Your task to perform on an android device: toggle sleep mode Image 0: 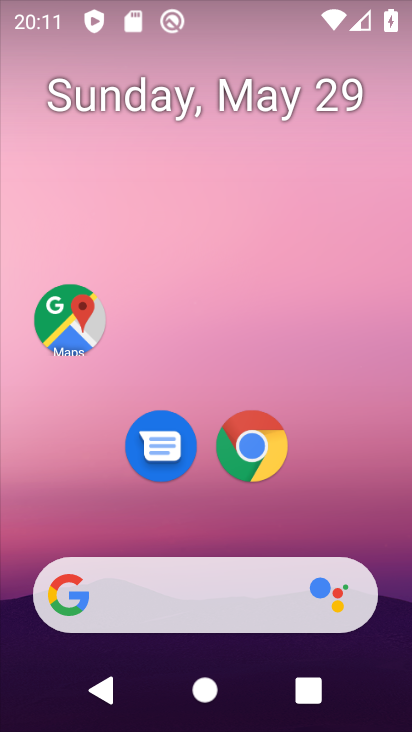
Step 0: drag from (213, 616) to (111, 1)
Your task to perform on an android device: toggle sleep mode Image 1: 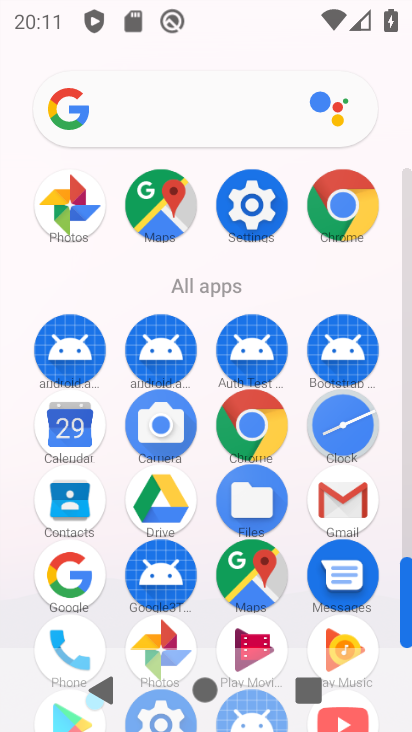
Step 1: click (245, 188)
Your task to perform on an android device: toggle sleep mode Image 2: 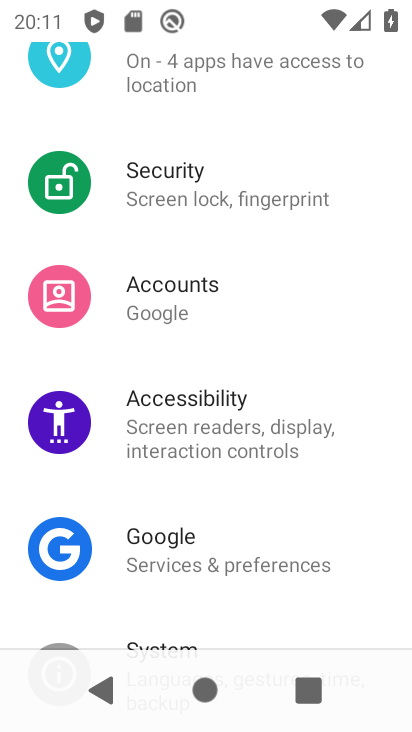
Step 2: drag from (189, 213) to (56, 714)
Your task to perform on an android device: toggle sleep mode Image 3: 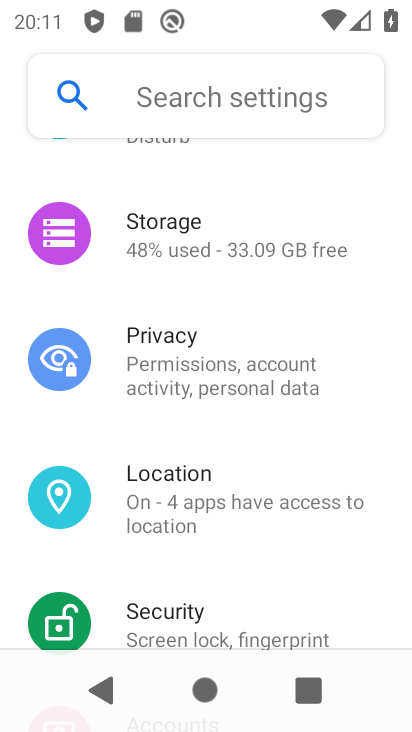
Step 3: drag from (144, 303) to (212, 543)
Your task to perform on an android device: toggle sleep mode Image 4: 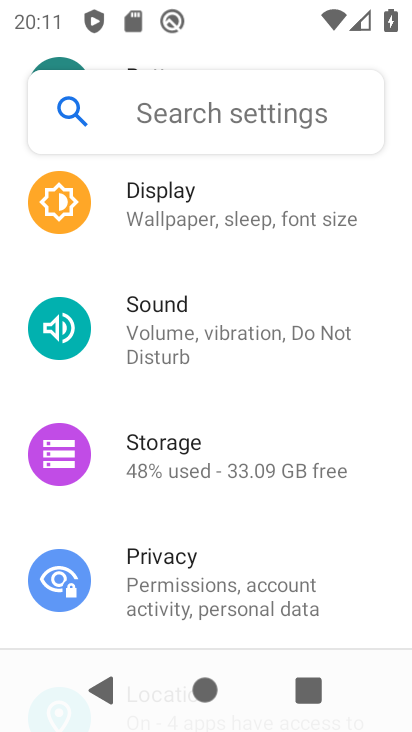
Step 4: click (178, 212)
Your task to perform on an android device: toggle sleep mode Image 5: 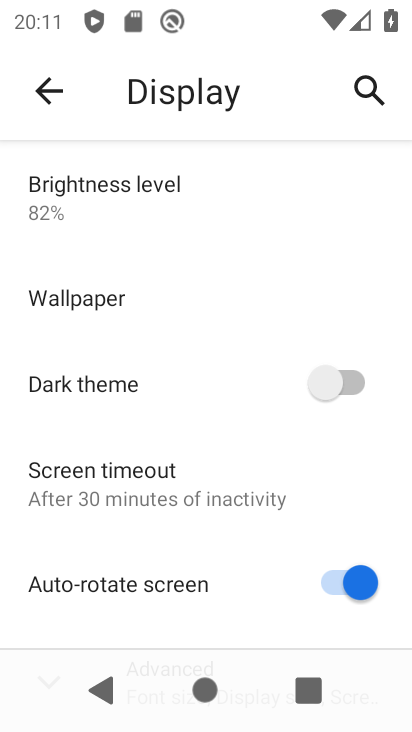
Step 5: drag from (179, 479) to (194, 86)
Your task to perform on an android device: toggle sleep mode Image 6: 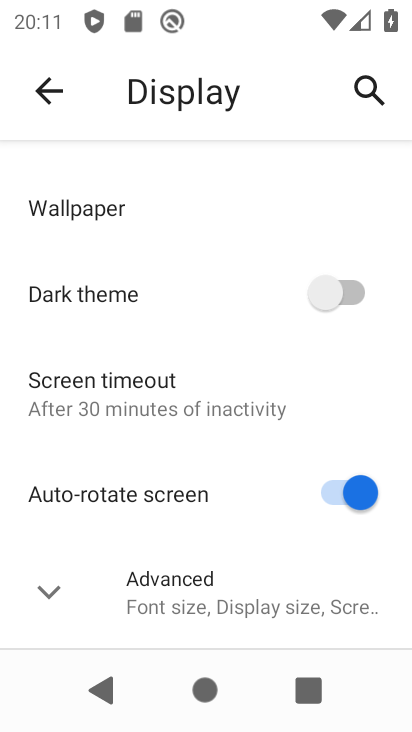
Step 6: click (144, 602)
Your task to perform on an android device: toggle sleep mode Image 7: 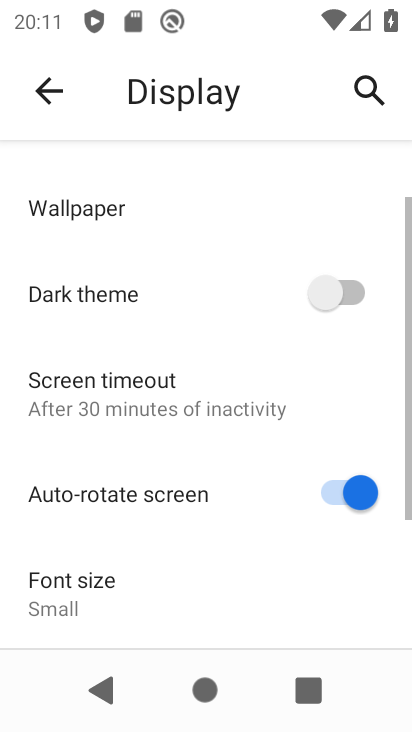
Step 7: task complete